Your task to perform on an android device: toggle translation in the chrome app Image 0: 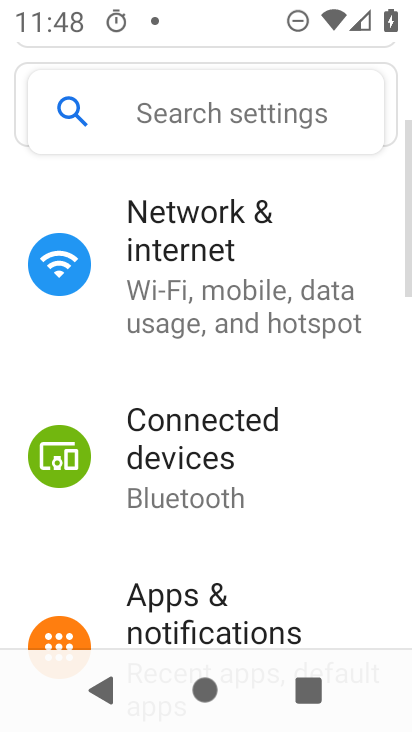
Step 0: press back button
Your task to perform on an android device: toggle translation in the chrome app Image 1: 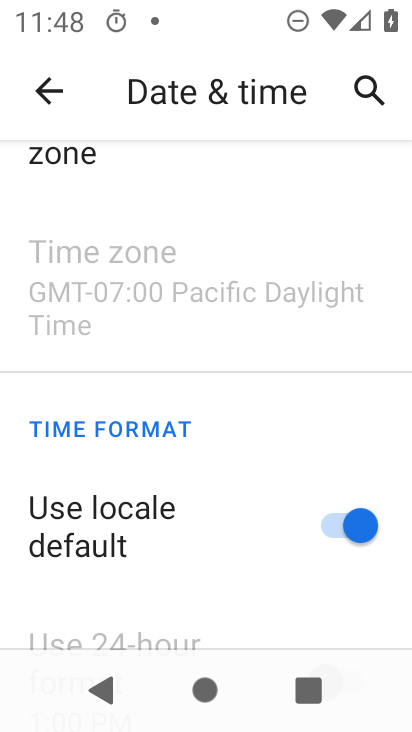
Step 1: press home button
Your task to perform on an android device: toggle translation in the chrome app Image 2: 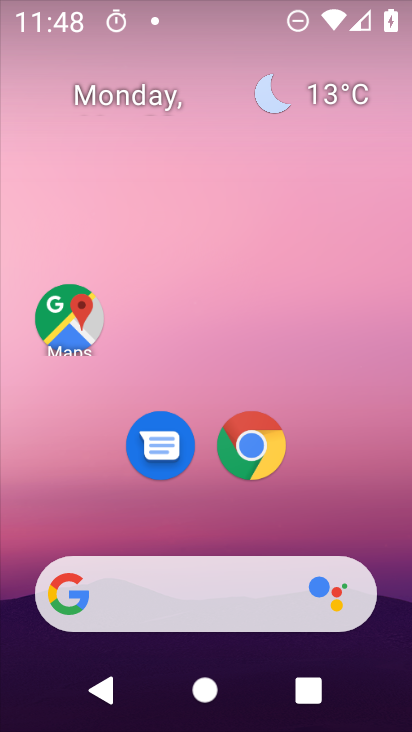
Step 2: drag from (181, 520) to (313, 79)
Your task to perform on an android device: toggle translation in the chrome app Image 3: 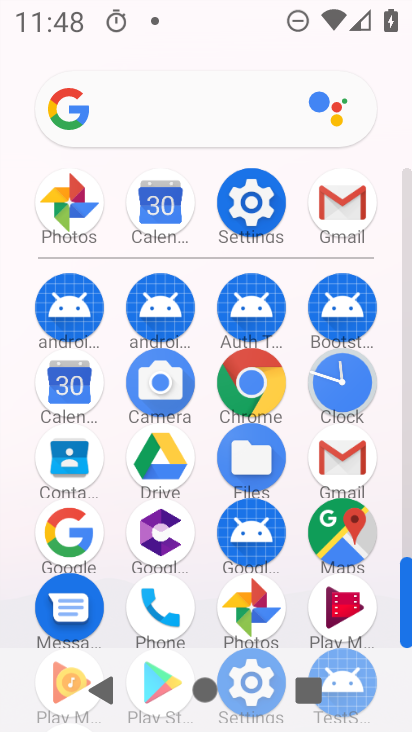
Step 3: click (245, 387)
Your task to perform on an android device: toggle translation in the chrome app Image 4: 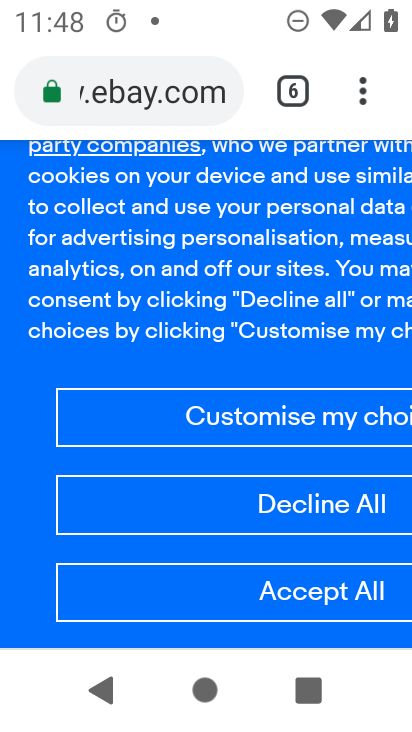
Step 4: click (368, 83)
Your task to perform on an android device: toggle translation in the chrome app Image 5: 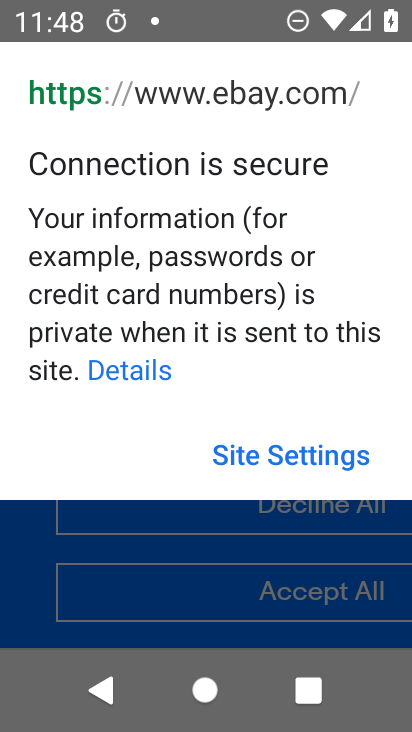
Step 5: click (236, 539)
Your task to perform on an android device: toggle translation in the chrome app Image 6: 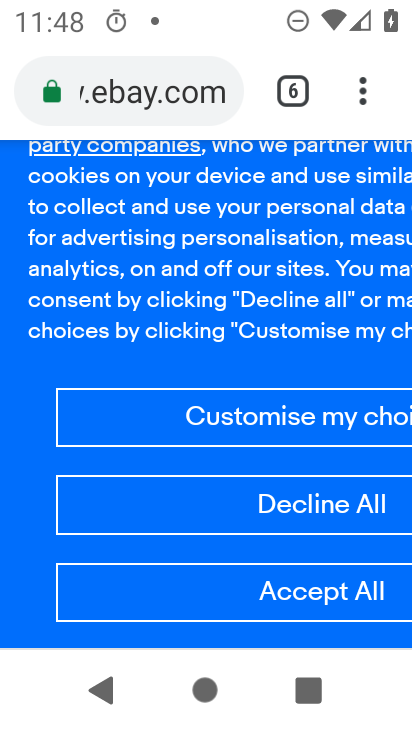
Step 6: drag from (360, 83) to (123, 479)
Your task to perform on an android device: toggle translation in the chrome app Image 7: 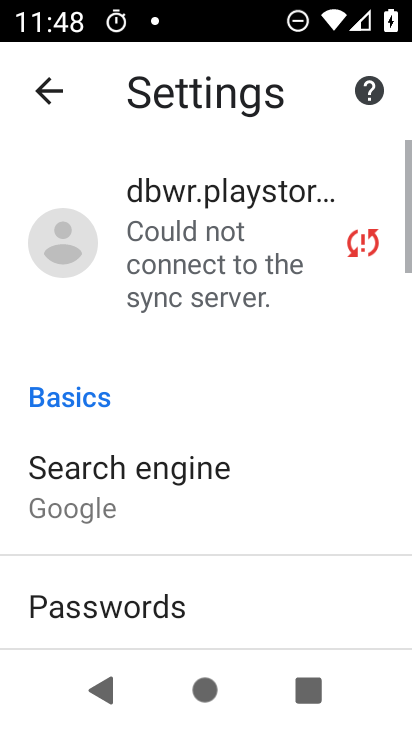
Step 7: drag from (171, 612) to (280, 162)
Your task to perform on an android device: toggle translation in the chrome app Image 8: 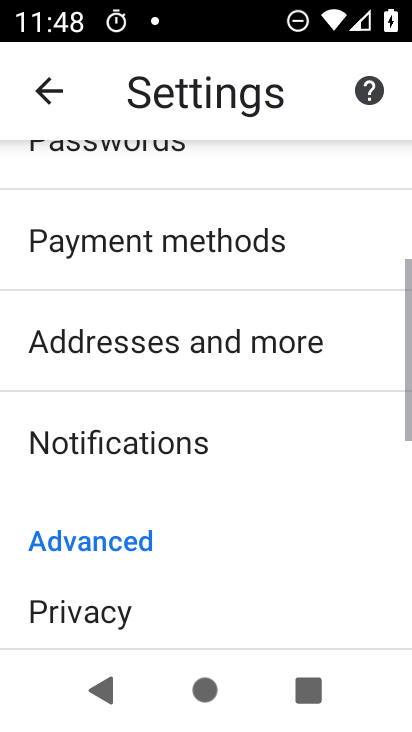
Step 8: drag from (155, 579) to (246, 78)
Your task to perform on an android device: toggle translation in the chrome app Image 9: 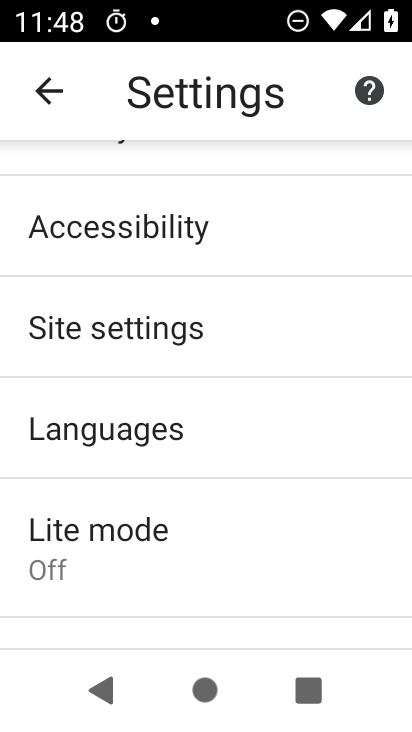
Step 9: click (161, 418)
Your task to perform on an android device: toggle translation in the chrome app Image 10: 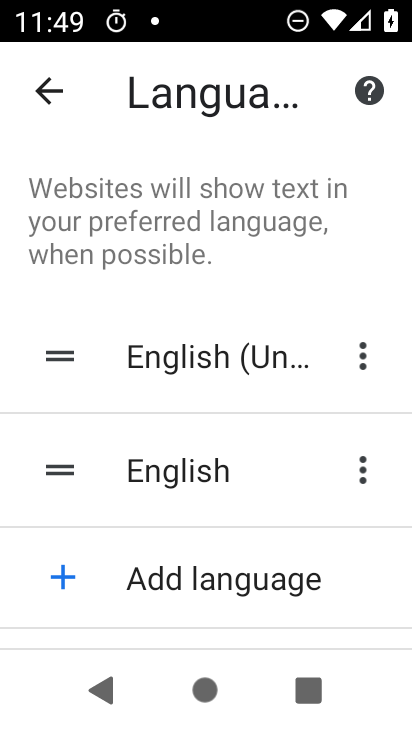
Step 10: drag from (189, 581) to (280, 84)
Your task to perform on an android device: toggle translation in the chrome app Image 11: 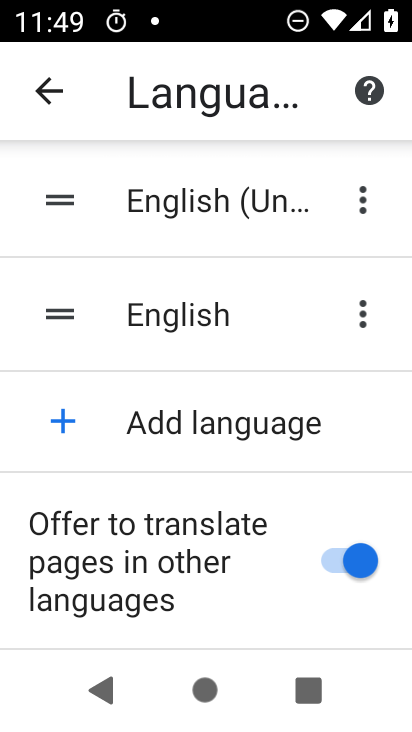
Step 11: click (348, 555)
Your task to perform on an android device: toggle translation in the chrome app Image 12: 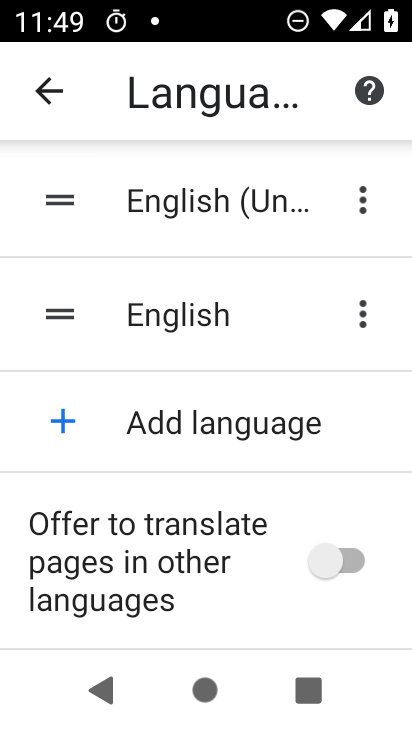
Step 12: task complete